Your task to perform on an android device: uninstall "Google Docs" Image 0: 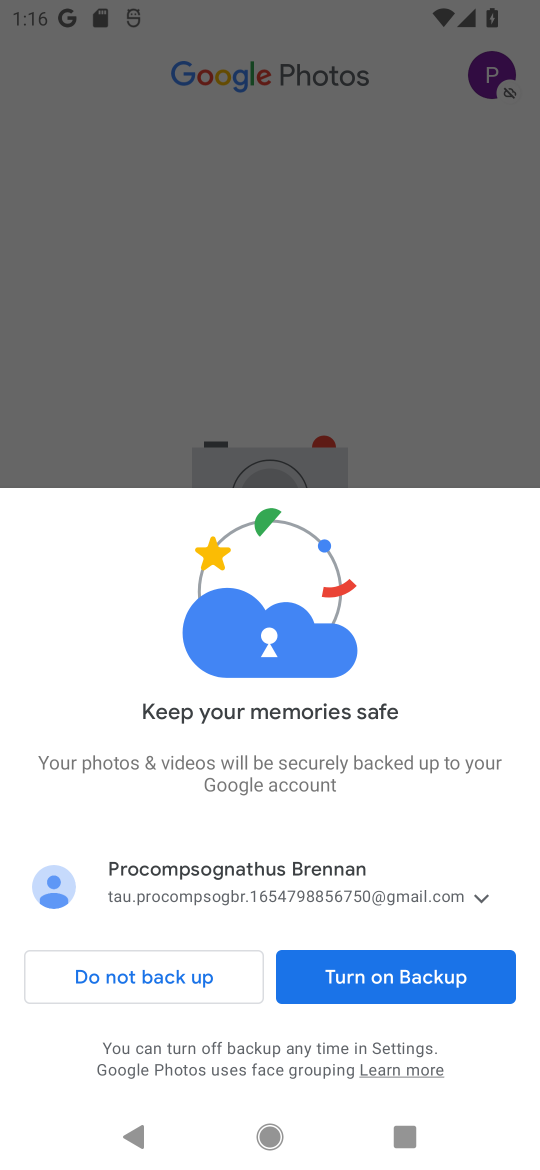
Step 0: press back button
Your task to perform on an android device: uninstall "Google Docs" Image 1: 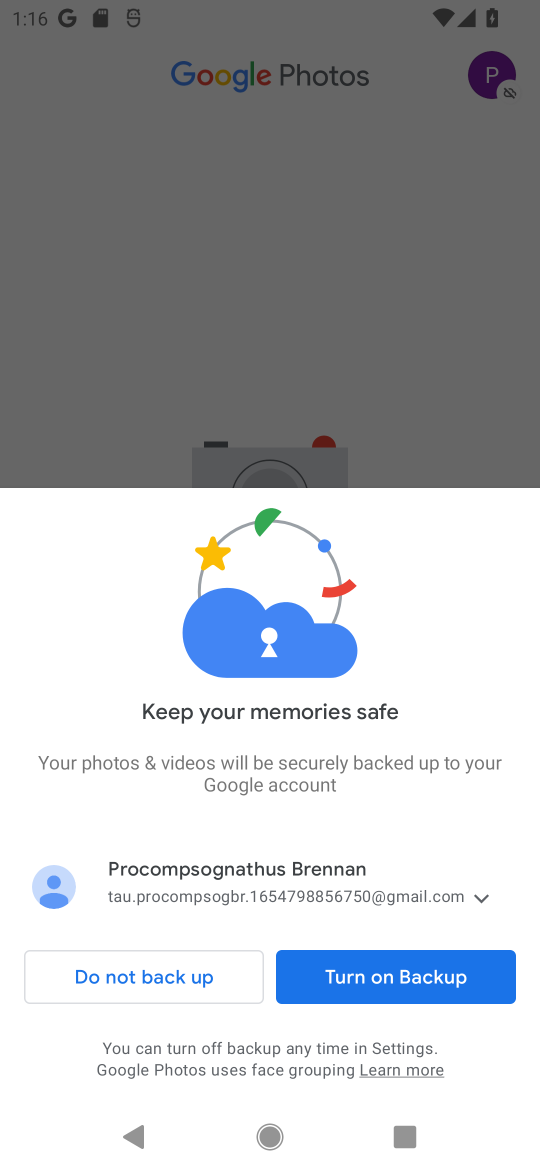
Step 1: press home button
Your task to perform on an android device: uninstall "Google Docs" Image 2: 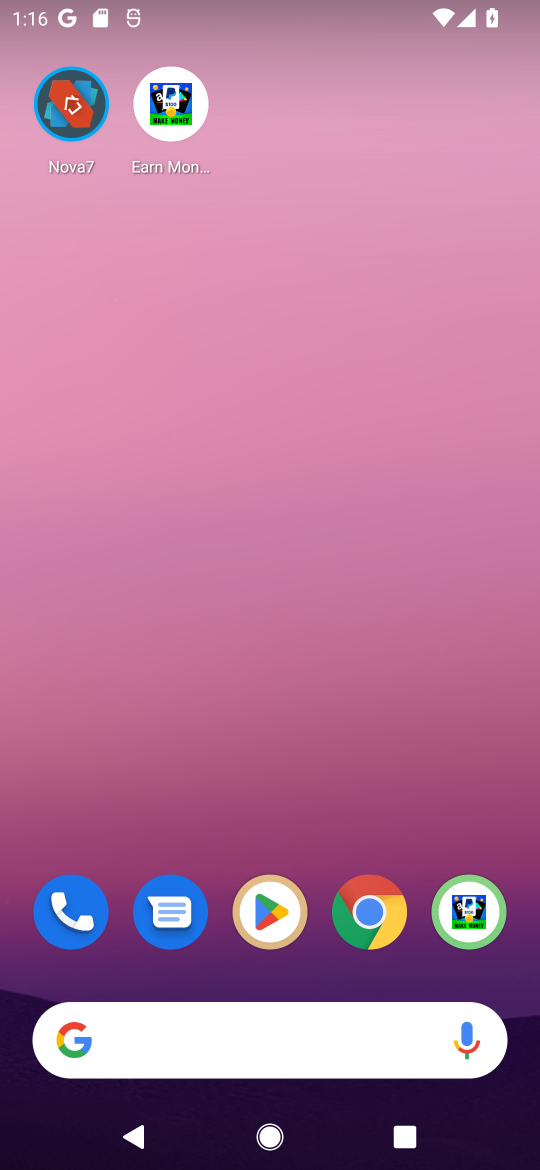
Step 2: click (267, 910)
Your task to perform on an android device: uninstall "Google Docs" Image 3: 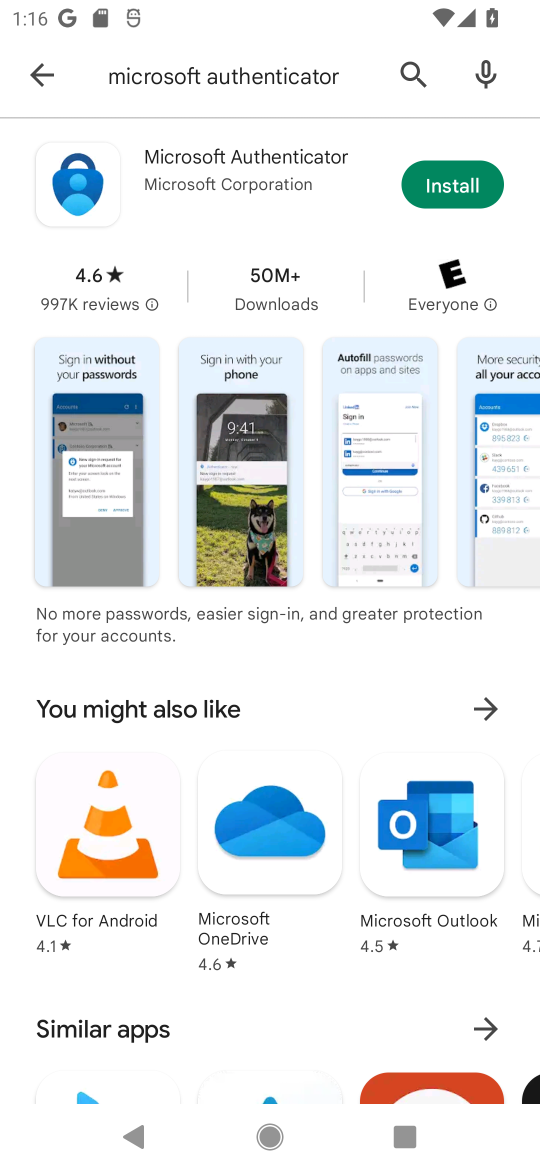
Step 3: click (410, 73)
Your task to perform on an android device: uninstall "Google Docs" Image 4: 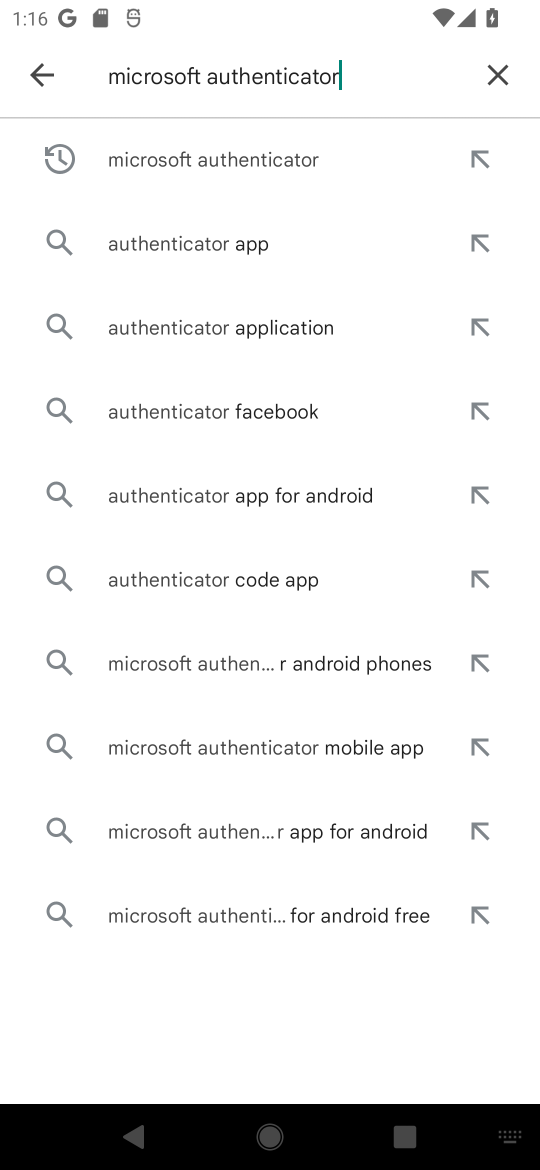
Step 4: click (502, 63)
Your task to perform on an android device: uninstall "Google Docs" Image 5: 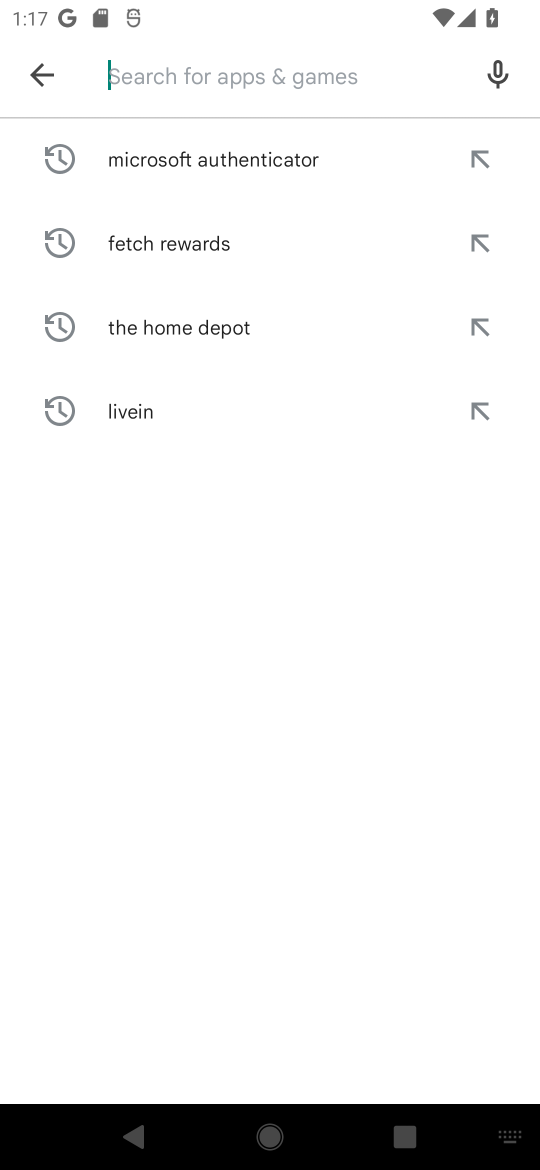
Step 5: click (225, 66)
Your task to perform on an android device: uninstall "Google Docs" Image 6: 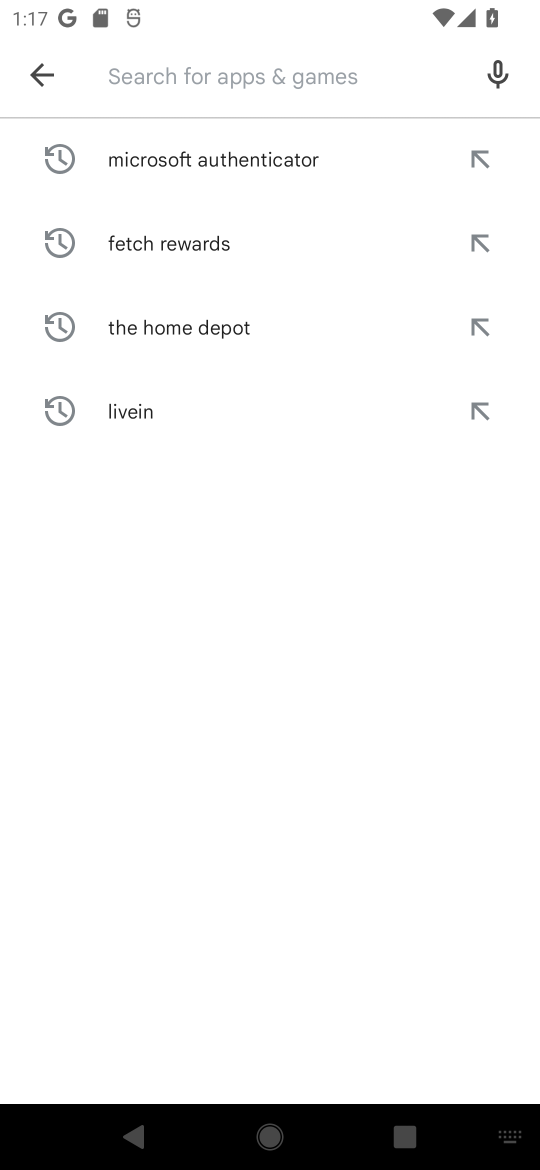
Step 6: type "Google Docs"
Your task to perform on an android device: uninstall "Google Docs" Image 7: 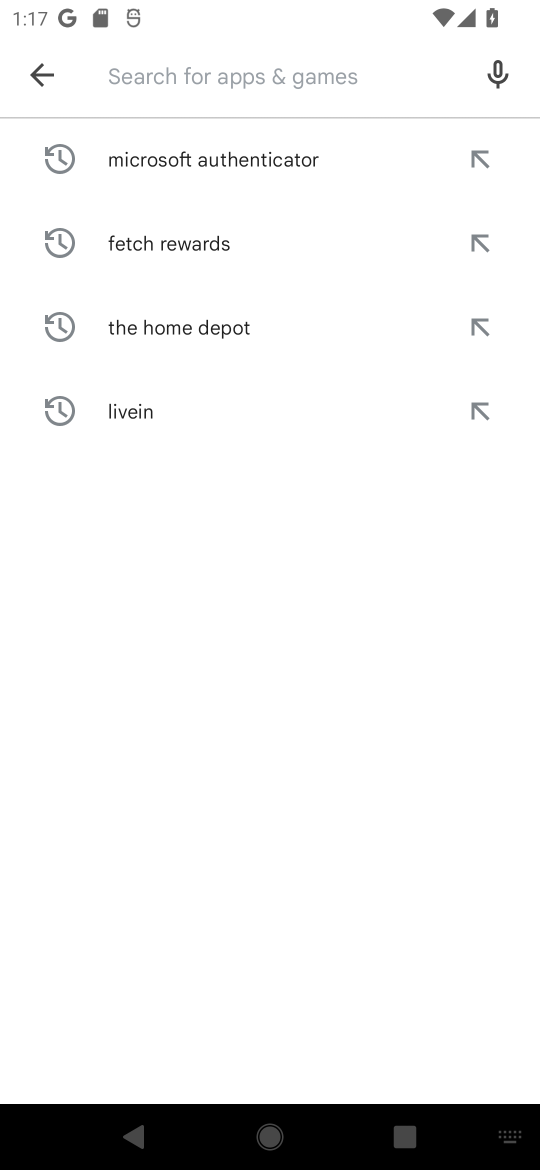
Step 7: click (185, 784)
Your task to perform on an android device: uninstall "Google Docs" Image 8: 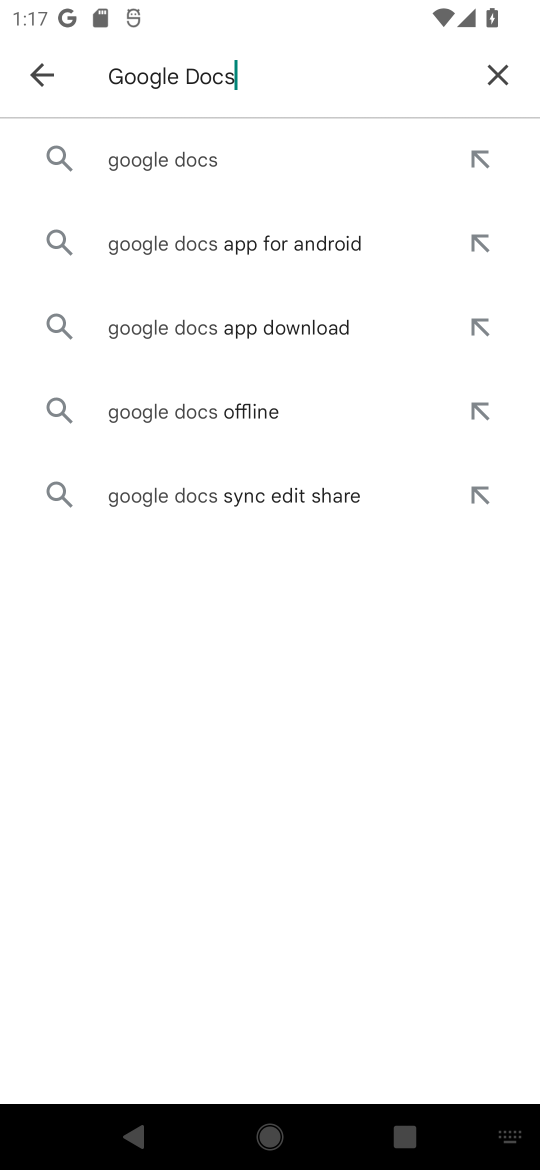
Step 8: click (194, 151)
Your task to perform on an android device: uninstall "Google Docs" Image 9: 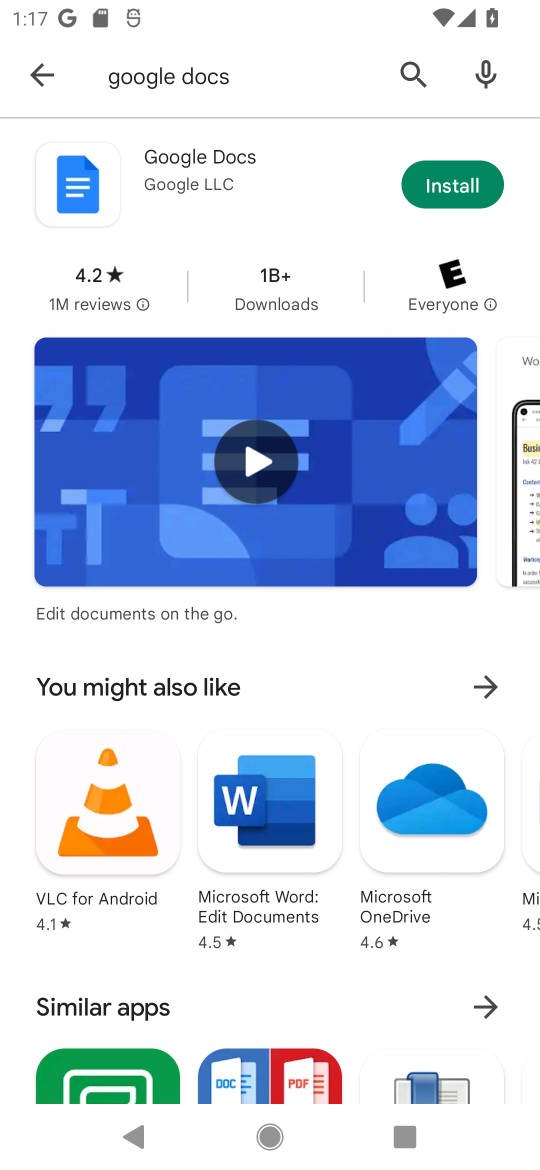
Step 9: click (194, 151)
Your task to perform on an android device: uninstall "Google Docs" Image 10: 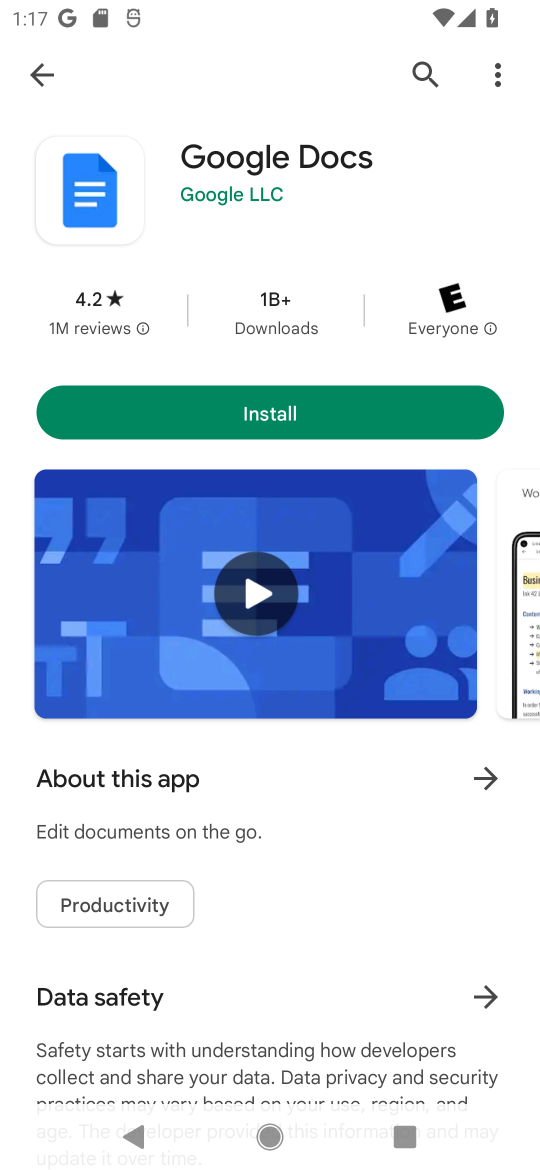
Step 10: task complete